Your task to perform on an android device: Open ESPN.com Image 0: 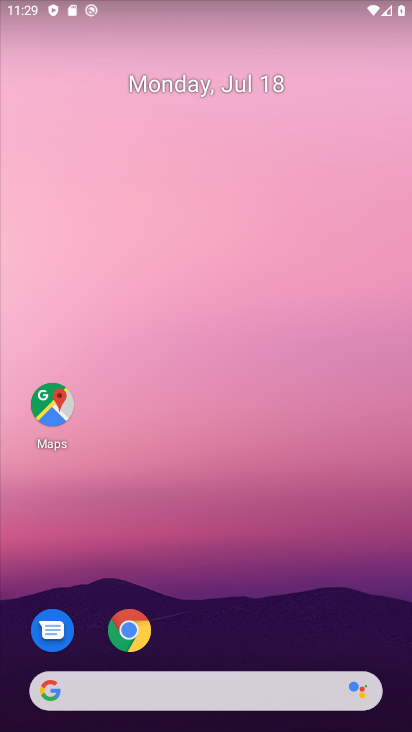
Step 0: click (137, 626)
Your task to perform on an android device: Open ESPN.com Image 1: 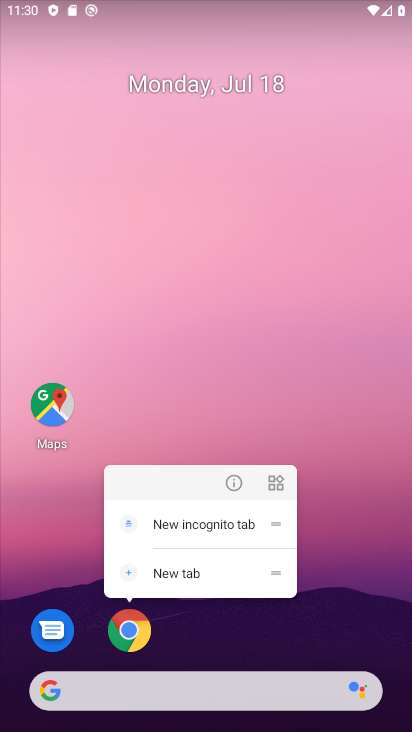
Step 1: click (134, 630)
Your task to perform on an android device: Open ESPN.com Image 2: 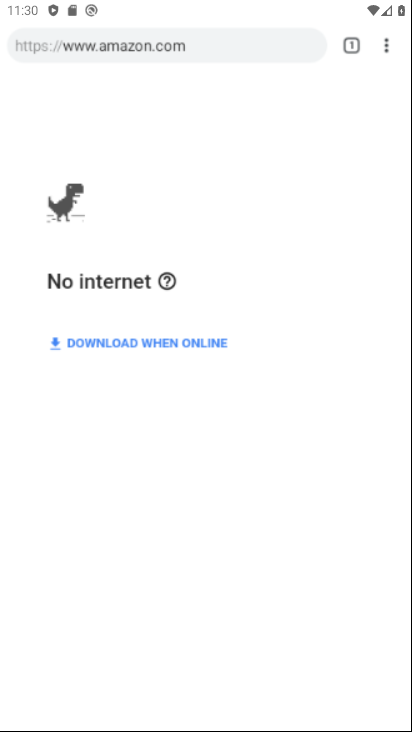
Step 2: click (141, 41)
Your task to perform on an android device: Open ESPN.com Image 3: 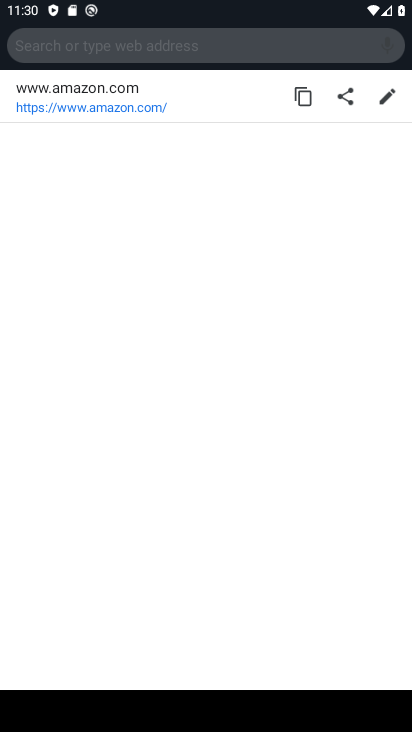
Step 3: type "ESPN.com"
Your task to perform on an android device: Open ESPN.com Image 4: 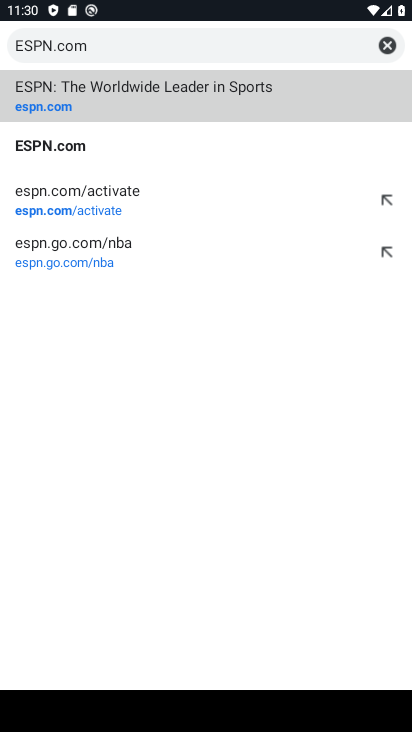
Step 4: click (101, 102)
Your task to perform on an android device: Open ESPN.com Image 5: 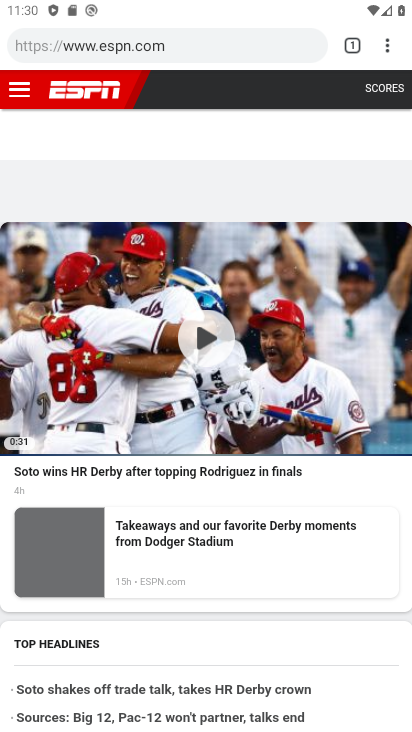
Step 5: task complete